Your task to perform on an android device: Show me recent news Image 0: 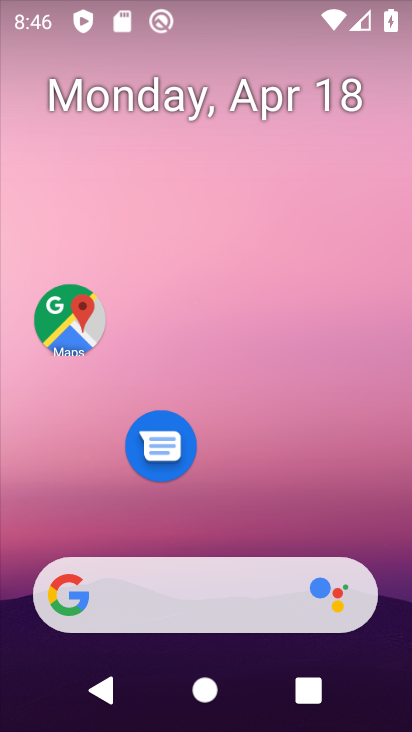
Step 0: drag from (211, 530) to (217, 87)
Your task to perform on an android device: Show me recent news Image 1: 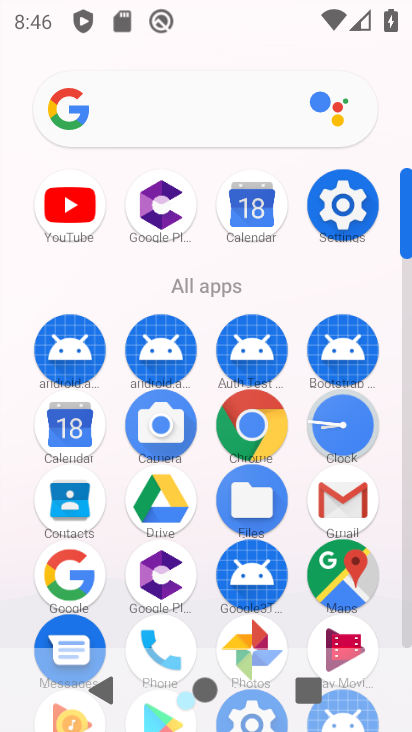
Step 1: task complete